Your task to perform on an android device: Open Google Maps and go to "Timeline" Image 0: 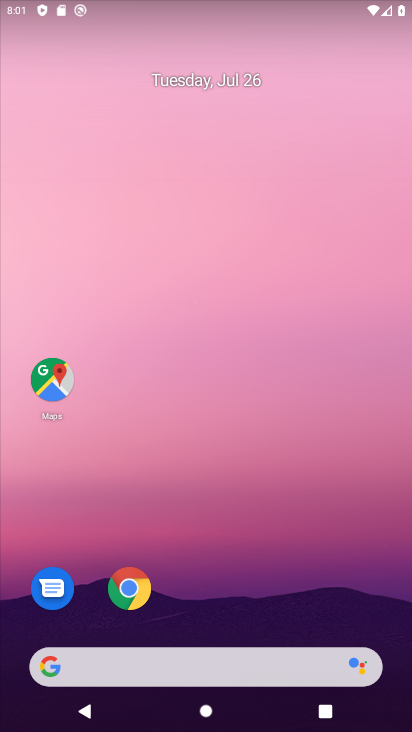
Step 0: click (55, 393)
Your task to perform on an android device: Open Google Maps and go to "Timeline" Image 1: 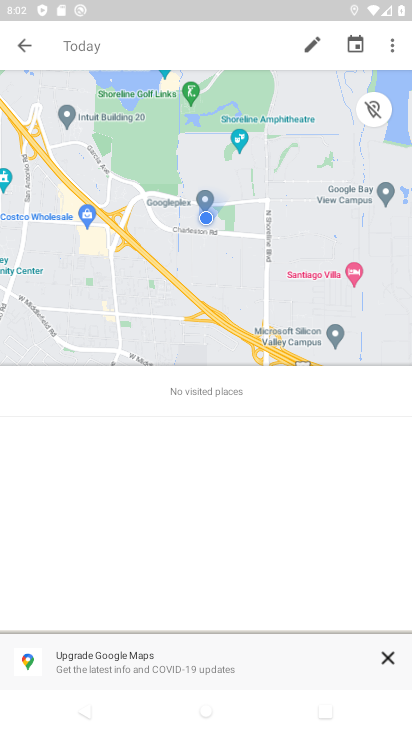
Step 1: task complete